Your task to perform on an android device: Find coffee shops on Maps Image 0: 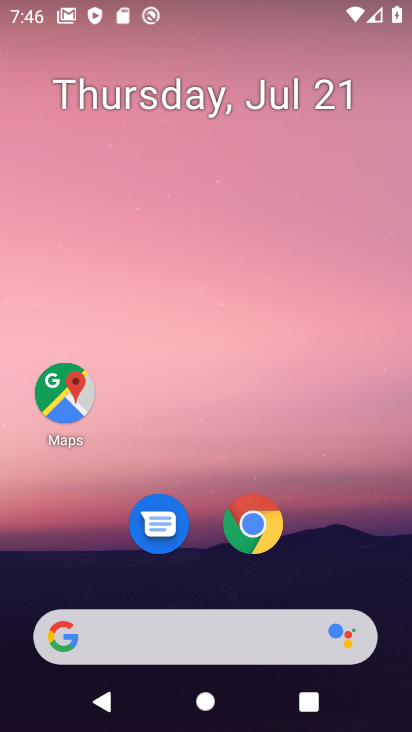
Step 0: press home button
Your task to perform on an android device: Find coffee shops on Maps Image 1: 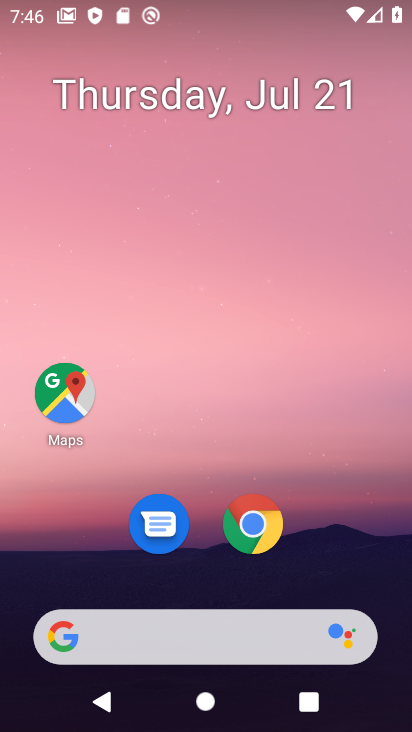
Step 1: click (69, 404)
Your task to perform on an android device: Find coffee shops on Maps Image 2: 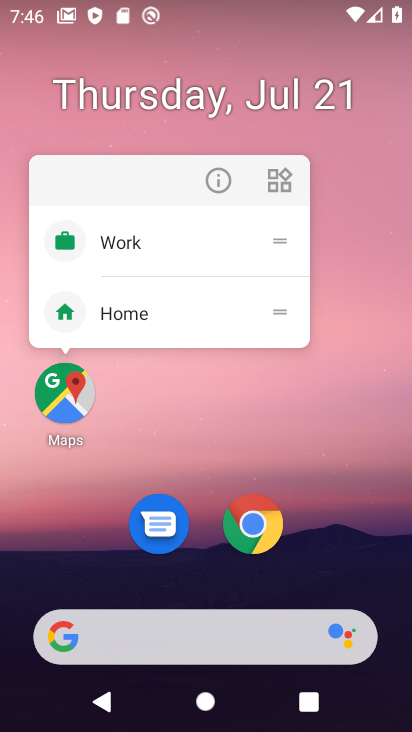
Step 2: click (60, 403)
Your task to perform on an android device: Find coffee shops on Maps Image 3: 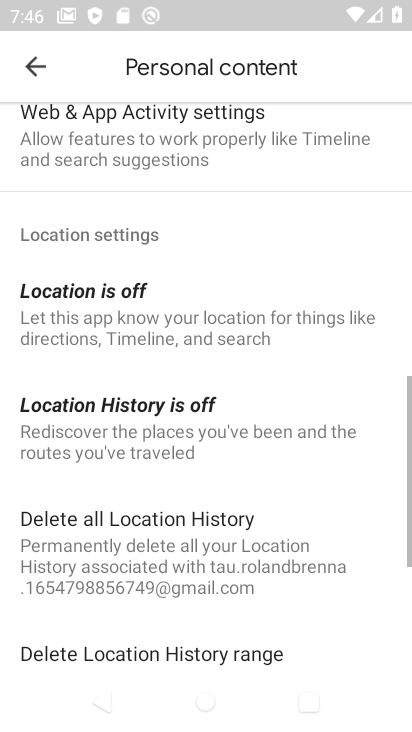
Step 3: click (17, 64)
Your task to perform on an android device: Find coffee shops on Maps Image 4: 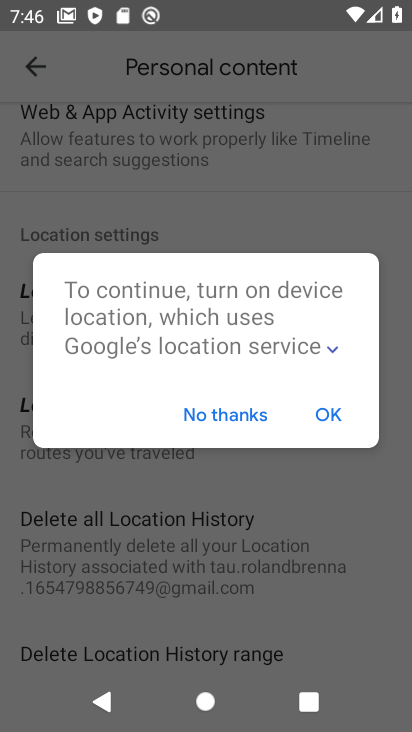
Step 4: click (32, 68)
Your task to perform on an android device: Find coffee shops on Maps Image 5: 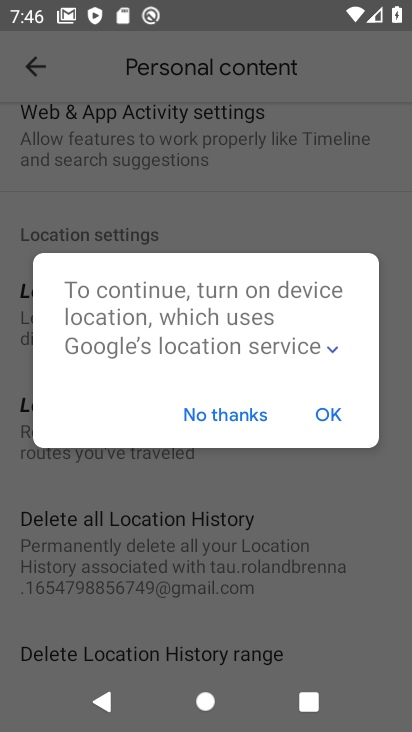
Step 5: click (322, 417)
Your task to perform on an android device: Find coffee shops on Maps Image 6: 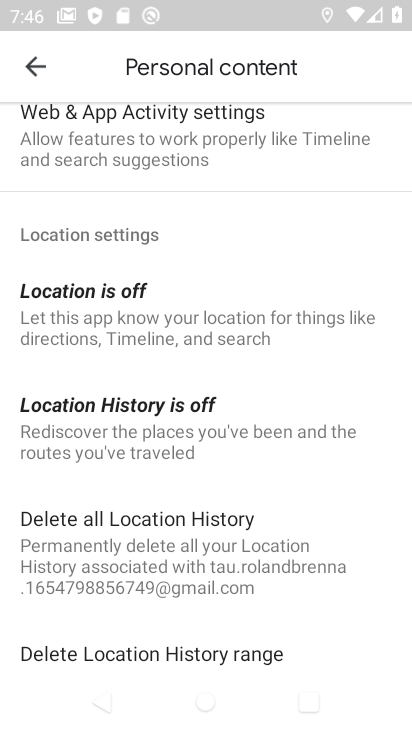
Step 6: click (44, 55)
Your task to perform on an android device: Find coffee shops on Maps Image 7: 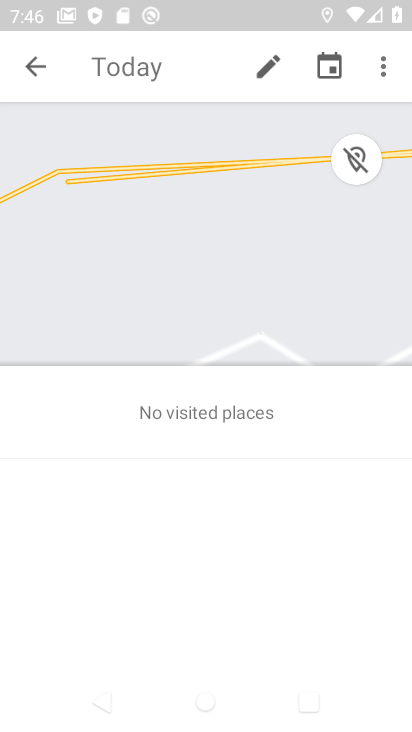
Step 7: click (33, 61)
Your task to perform on an android device: Find coffee shops on Maps Image 8: 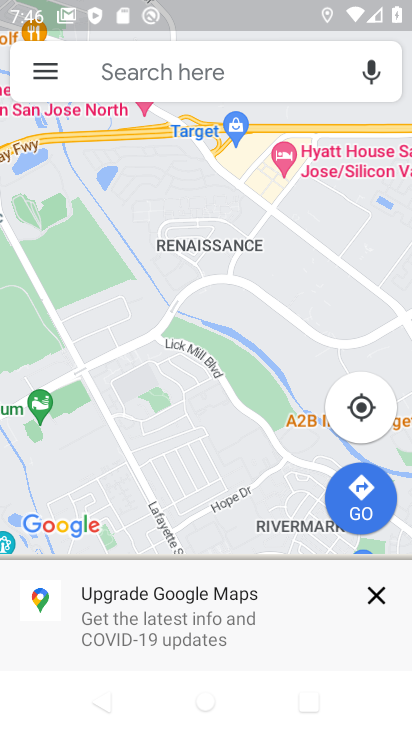
Step 8: click (197, 70)
Your task to perform on an android device: Find coffee shops on Maps Image 9: 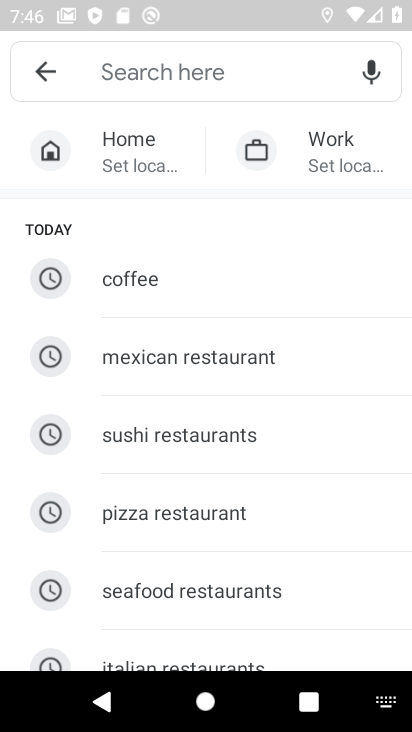
Step 9: click (129, 281)
Your task to perform on an android device: Find coffee shops on Maps Image 10: 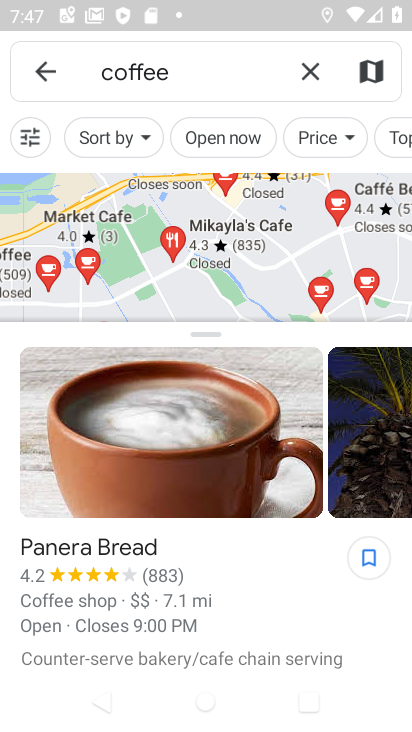
Step 10: task complete